Your task to perform on an android device: Is it going to rain this weekend? Image 0: 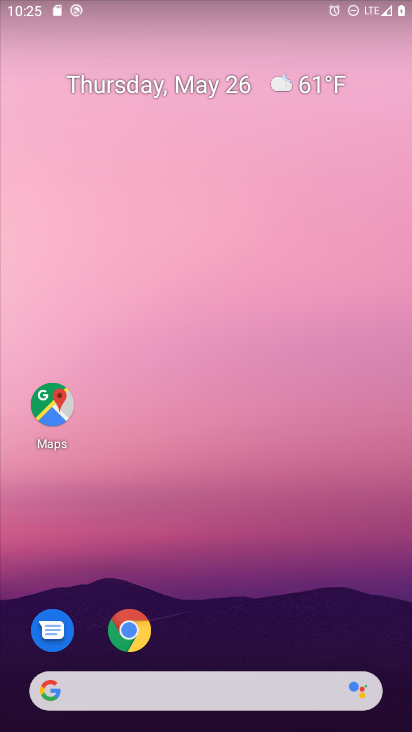
Step 0: click (207, 677)
Your task to perform on an android device: Is it going to rain this weekend? Image 1: 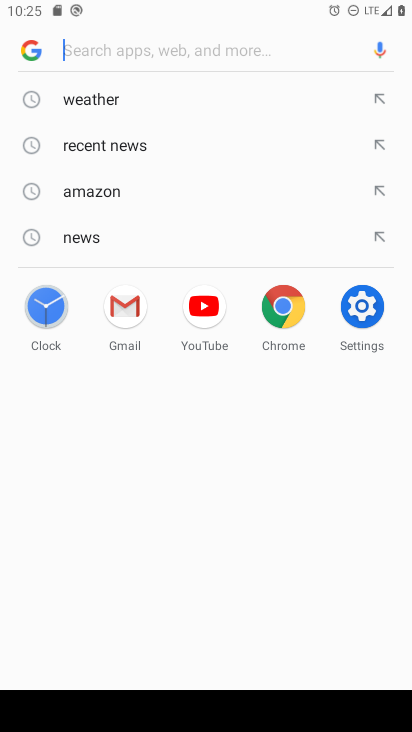
Step 1: click (53, 108)
Your task to perform on an android device: Is it going to rain this weekend? Image 2: 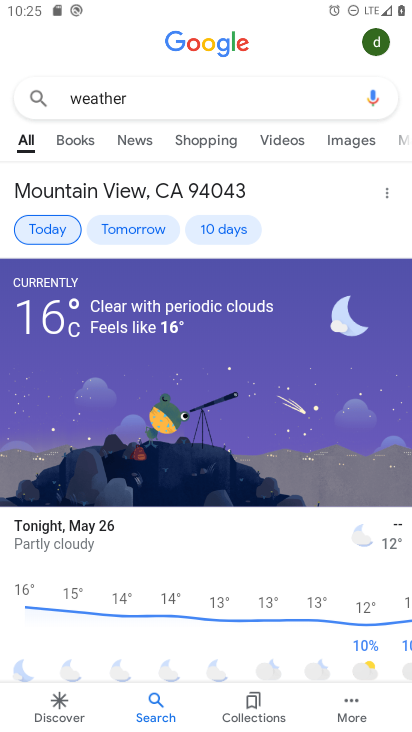
Step 2: click (219, 236)
Your task to perform on an android device: Is it going to rain this weekend? Image 3: 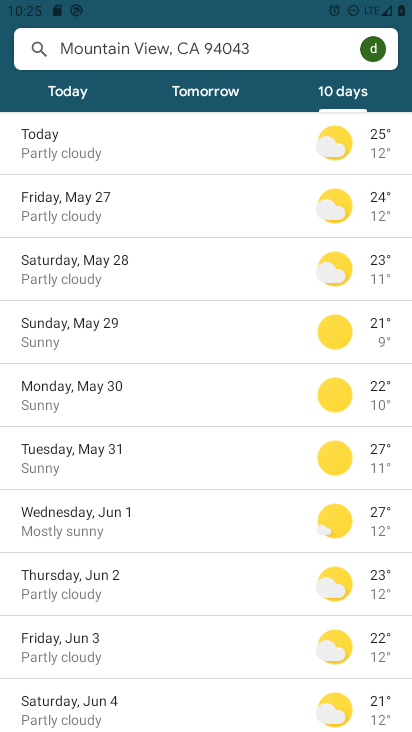
Step 3: task complete